Your task to perform on an android device: Go to Yahoo.com Image 0: 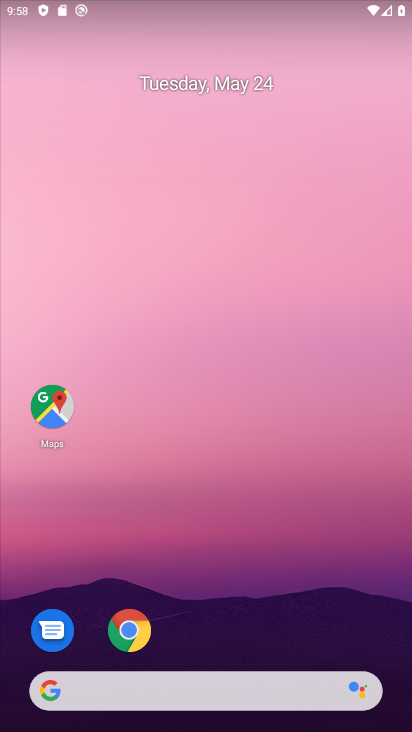
Step 0: press home button
Your task to perform on an android device: Go to Yahoo.com Image 1: 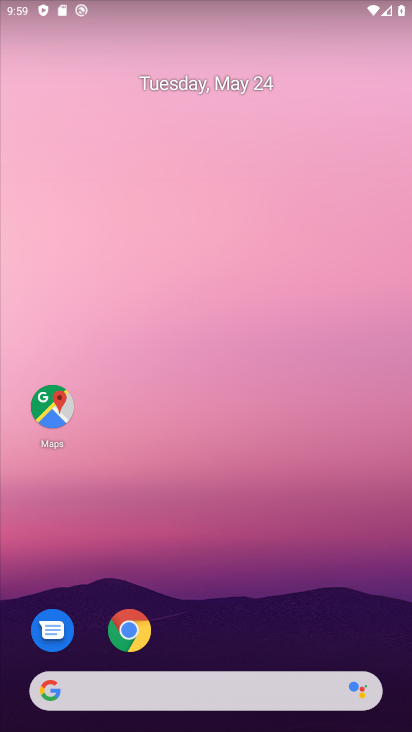
Step 1: click (132, 628)
Your task to perform on an android device: Go to Yahoo.com Image 2: 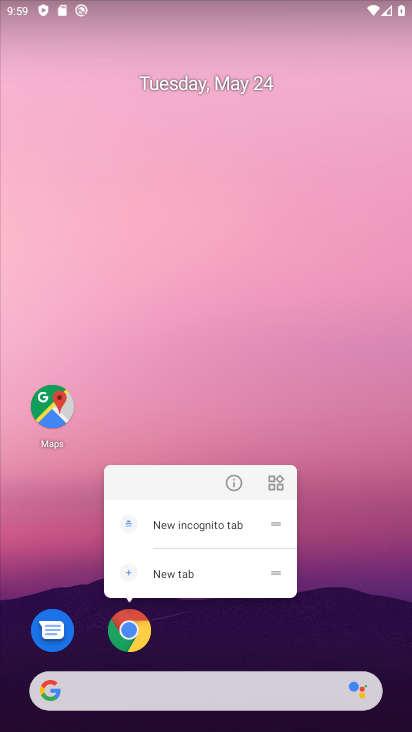
Step 2: click (125, 622)
Your task to perform on an android device: Go to Yahoo.com Image 3: 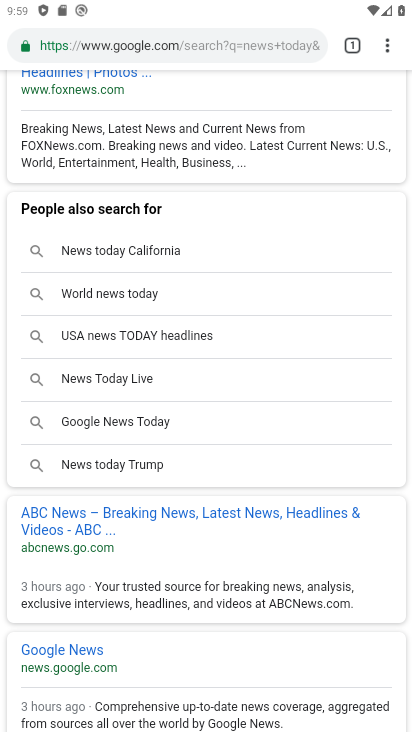
Step 3: click (346, 49)
Your task to perform on an android device: Go to Yahoo.com Image 4: 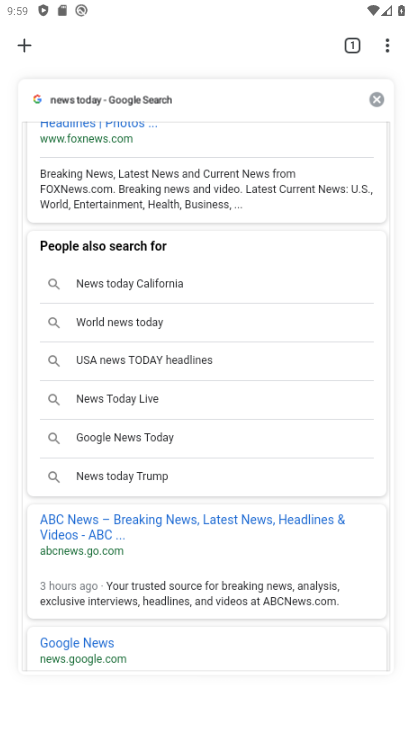
Step 4: click (379, 96)
Your task to perform on an android device: Go to Yahoo.com Image 5: 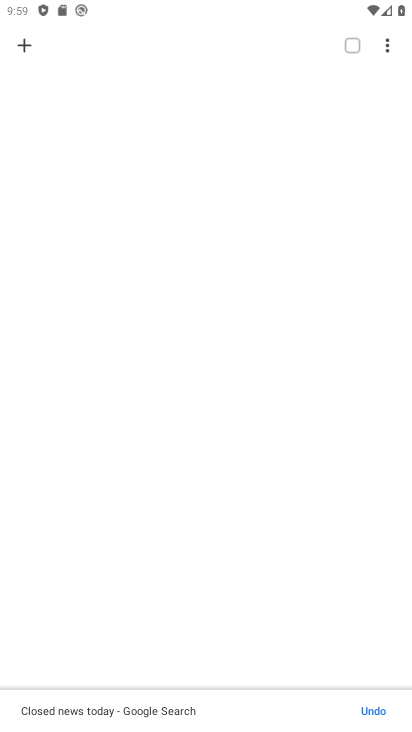
Step 5: click (27, 48)
Your task to perform on an android device: Go to Yahoo.com Image 6: 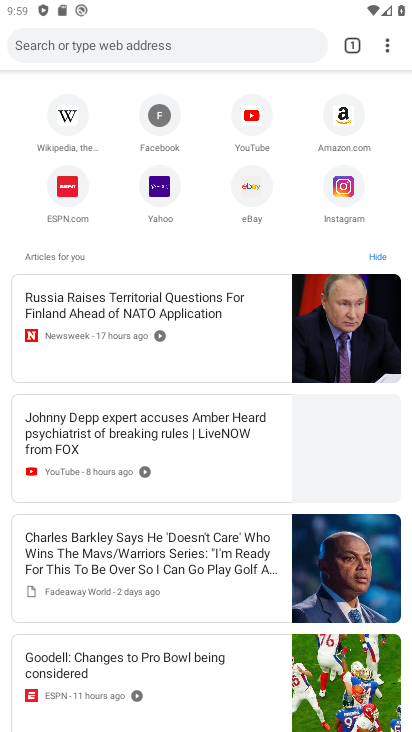
Step 6: click (164, 186)
Your task to perform on an android device: Go to Yahoo.com Image 7: 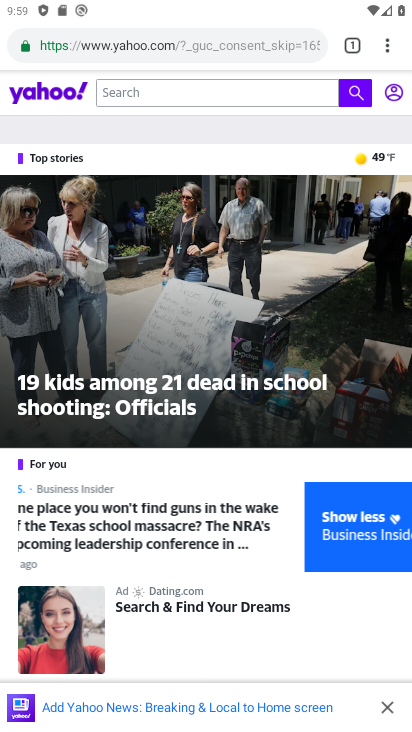
Step 7: task complete